Your task to perform on an android device: Open maps Image 0: 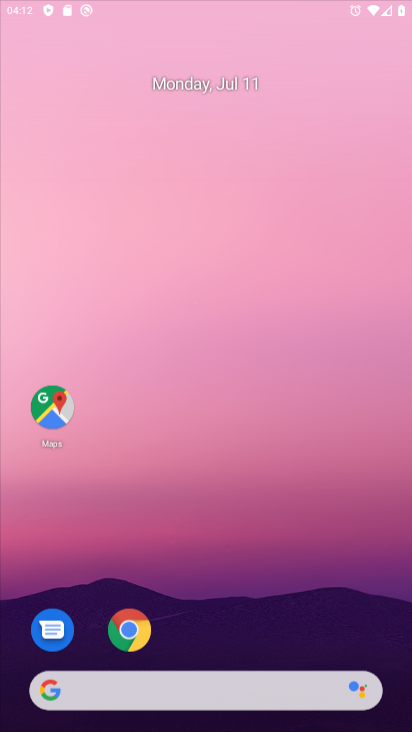
Step 0: press home button
Your task to perform on an android device: Open maps Image 1: 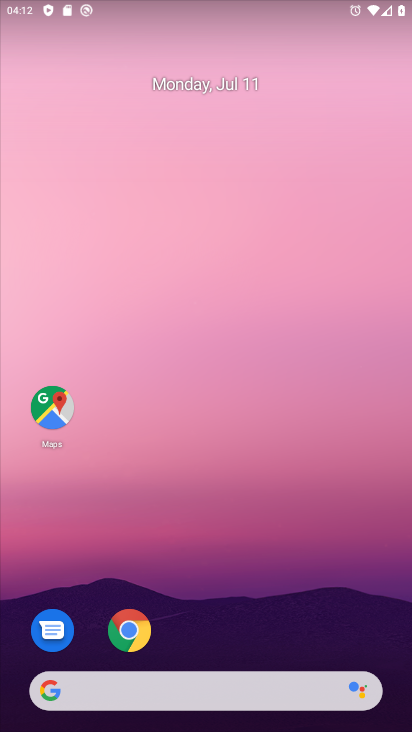
Step 1: click (50, 402)
Your task to perform on an android device: Open maps Image 2: 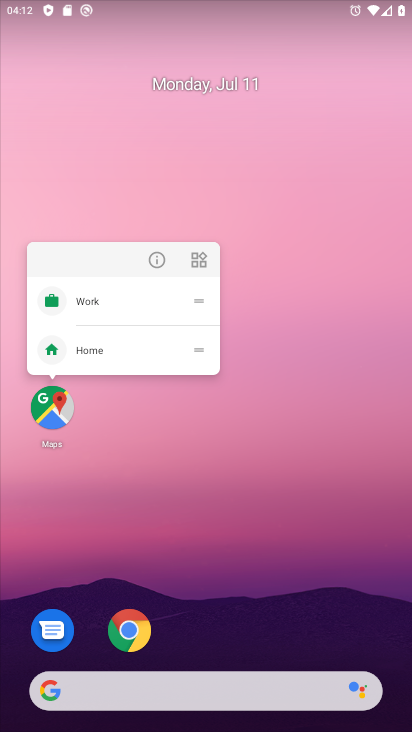
Step 2: click (282, 553)
Your task to perform on an android device: Open maps Image 3: 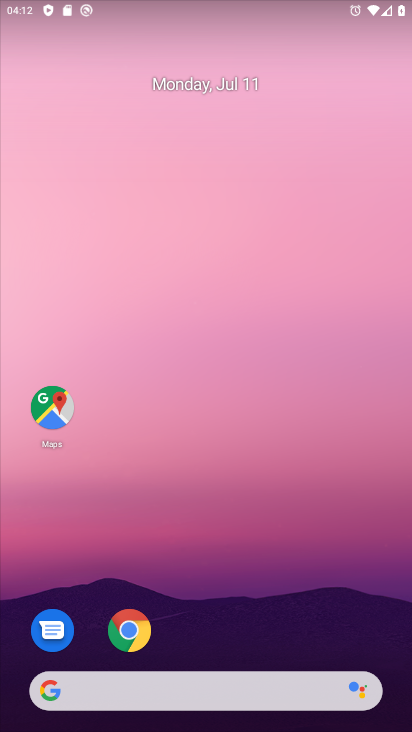
Step 3: click (50, 407)
Your task to perform on an android device: Open maps Image 4: 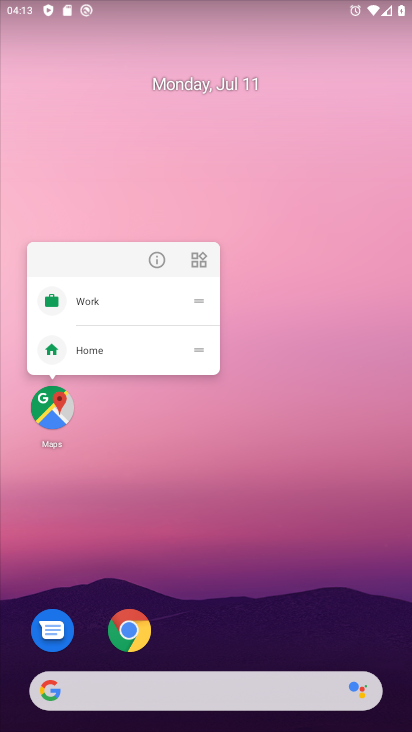
Step 4: click (58, 397)
Your task to perform on an android device: Open maps Image 5: 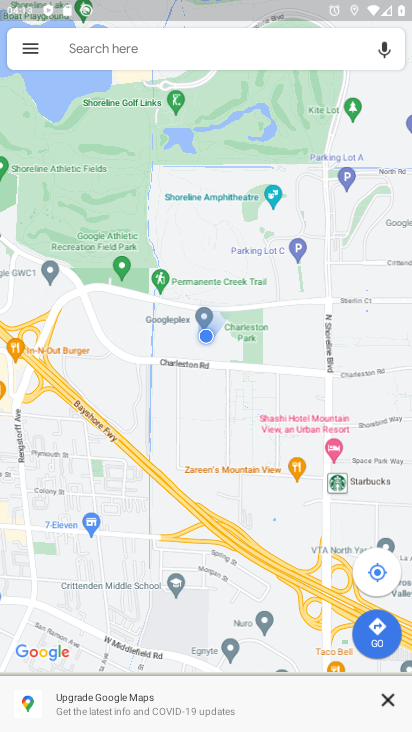
Step 5: task complete